Your task to perform on an android device: change keyboard looks Image 0: 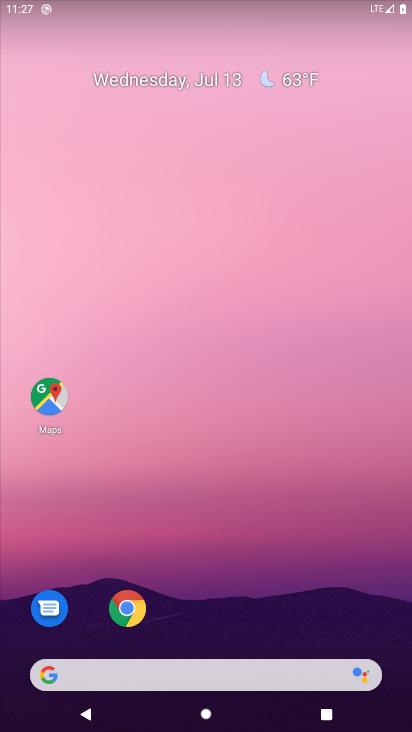
Step 0: drag from (309, 574) to (349, 54)
Your task to perform on an android device: change keyboard looks Image 1: 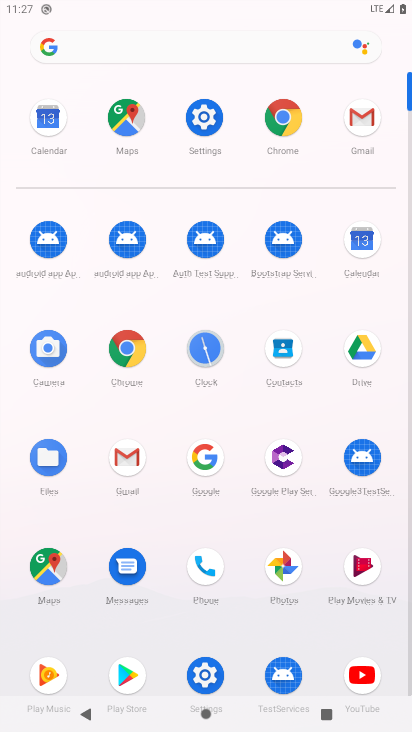
Step 1: click (206, 688)
Your task to perform on an android device: change keyboard looks Image 2: 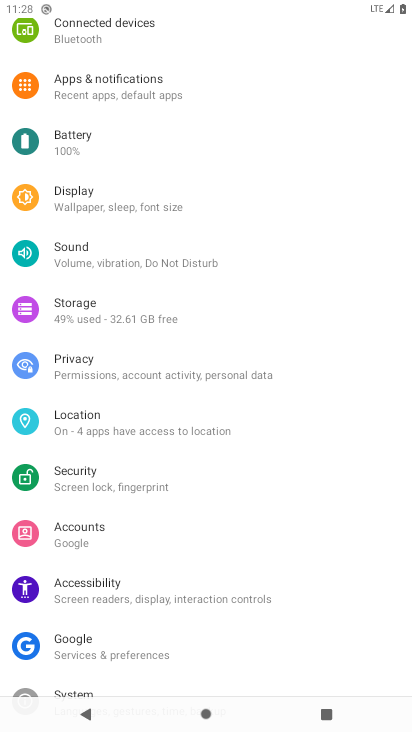
Step 2: drag from (217, 588) to (230, 200)
Your task to perform on an android device: change keyboard looks Image 3: 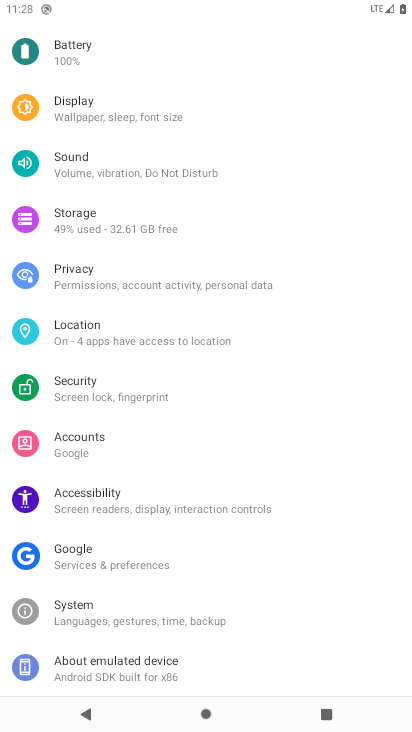
Step 3: click (124, 600)
Your task to perform on an android device: change keyboard looks Image 4: 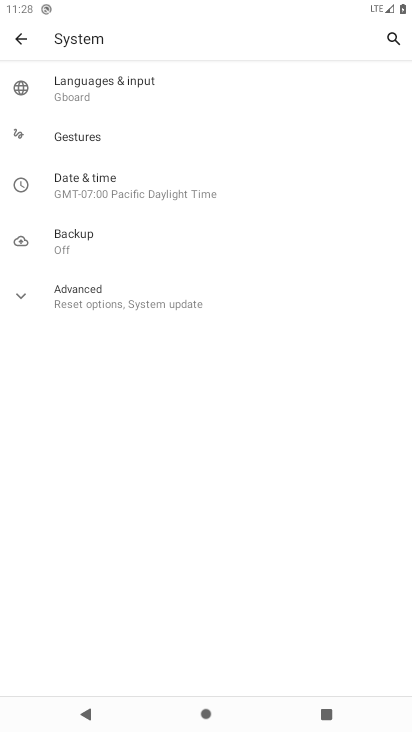
Step 4: click (37, 97)
Your task to perform on an android device: change keyboard looks Image 5: 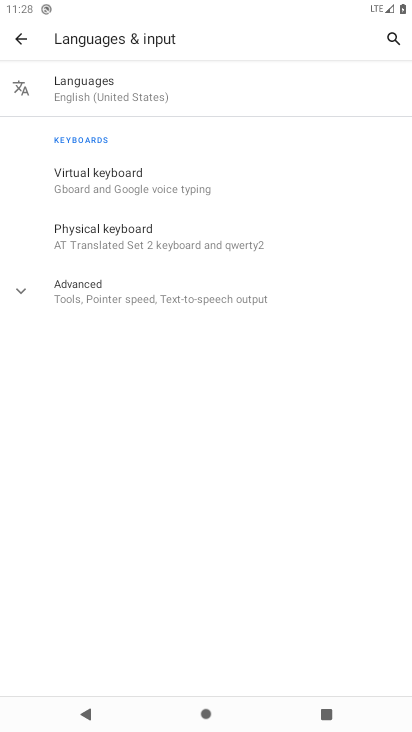
Step 5: click (81, 195)
Your task to perform on an android device: change keyboard looks Image 6: 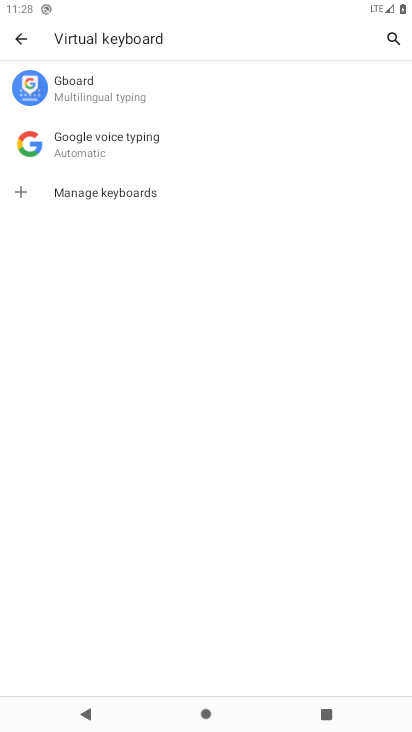
Step 6: click (73, 100)
Your task to perform on an android device: change keyboard looks Image 7: 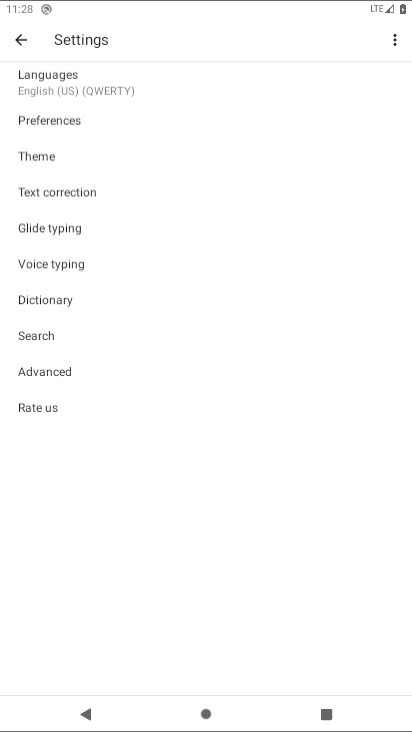
Step 7: click (79, 147)
Your task to perform on an android device: change keyboard looks Image 8: 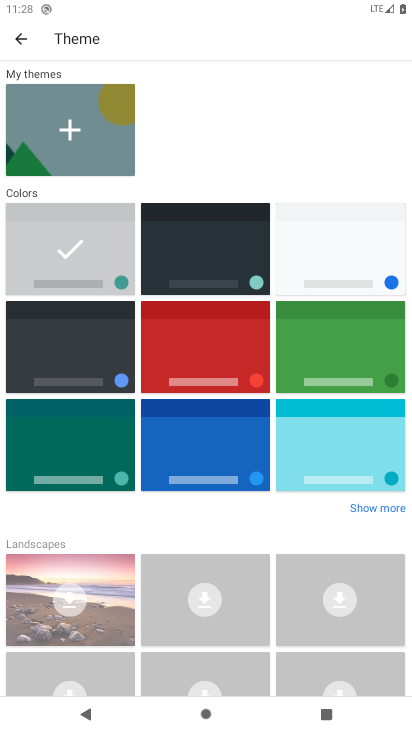
Step 8: click (209, 294)
Your task to perform on an android device: change keyboard looks Image 9: 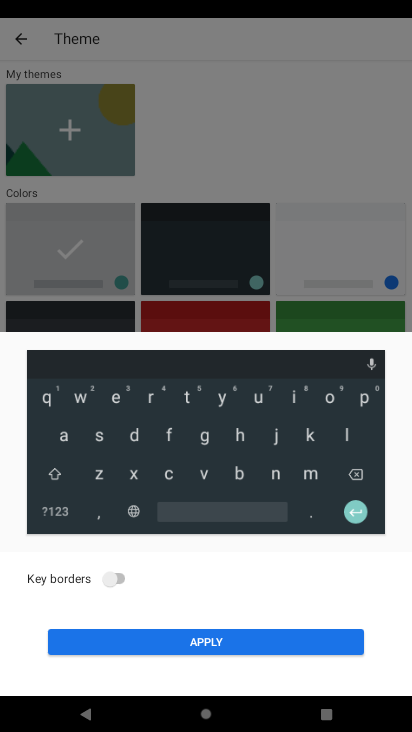
Step 9: click (228, 619)
Your task to perform on an android device: change keyboard looks Image 10: 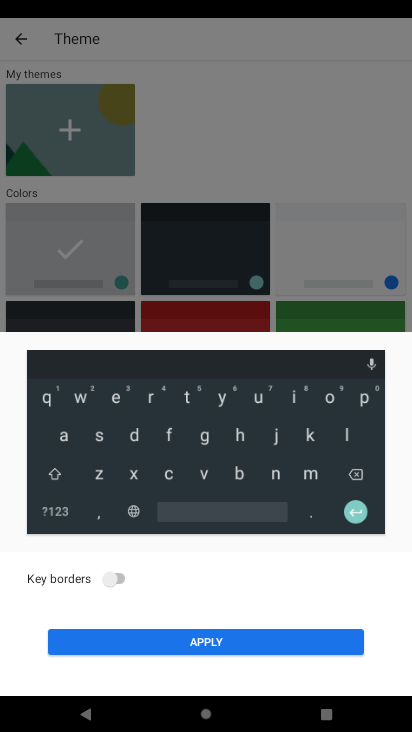
Step 10: click (237, 638)
Your task to perform on an android device: change keyboard looks Image 11: 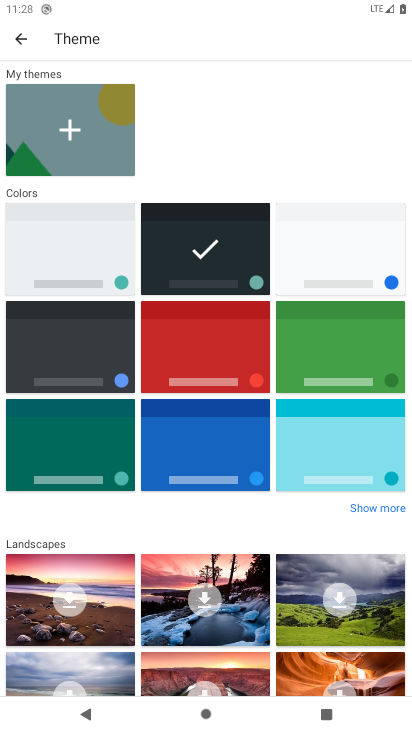
Step 11: task complete